Your task to perform on an android device: Open network settings Image 0: 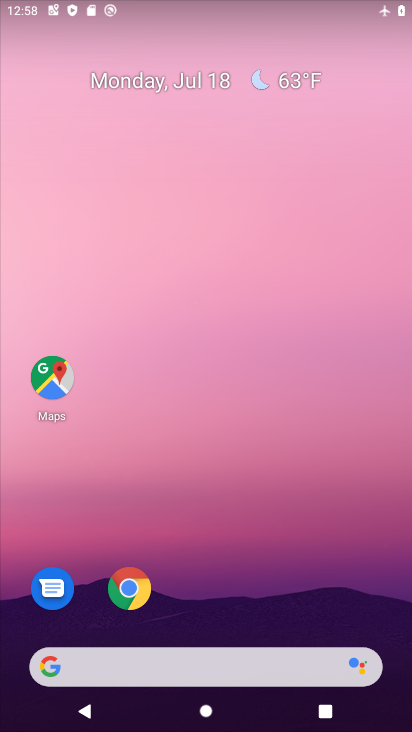
Step 0: drag from (230, 724) to (239, 129)
Your task to perform on an android device: Open network settings Image 1: 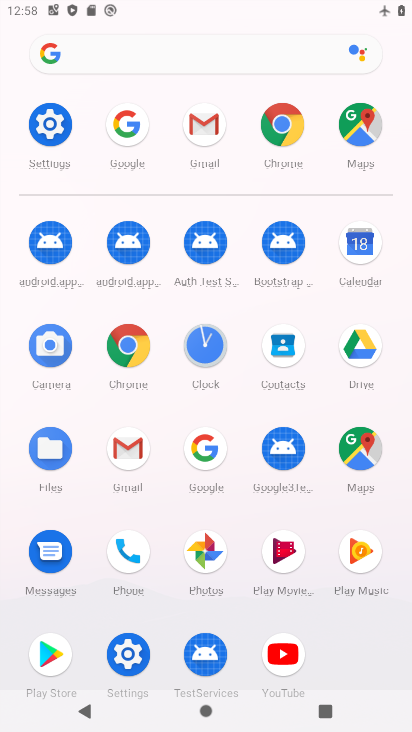
Step 1: click (55, 121)
Your task to perform on an android device: Open network settings Image 2: 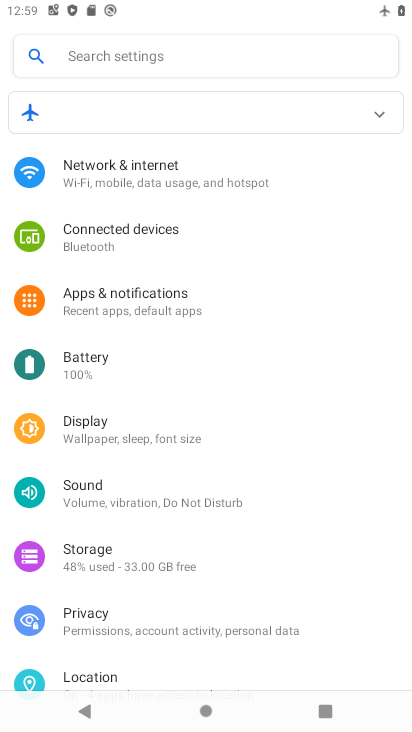
Step 2: click (149, 178)
Your task to perform on an android device: Open network settings Image 3: 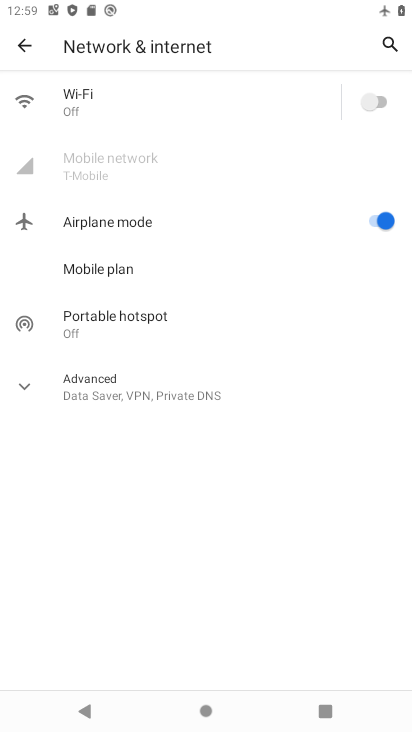
Step 3: task complete